Your task to perform on an android device: make emails show in primary in the gmail app Image 0: 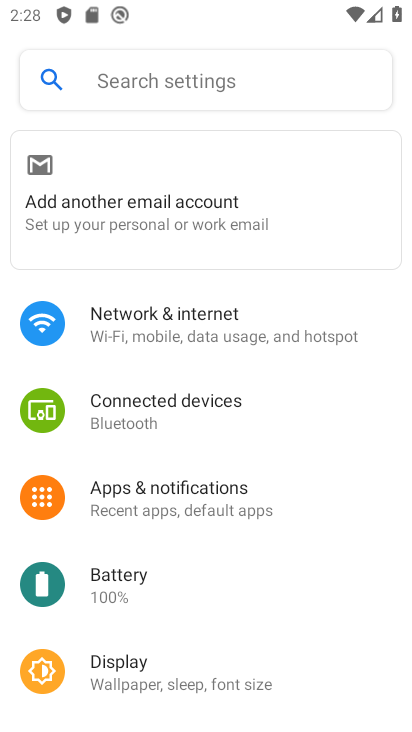
Step 0: press home button
Your task to perform on an android device: make emails show in primary in the gmail app Image 1: 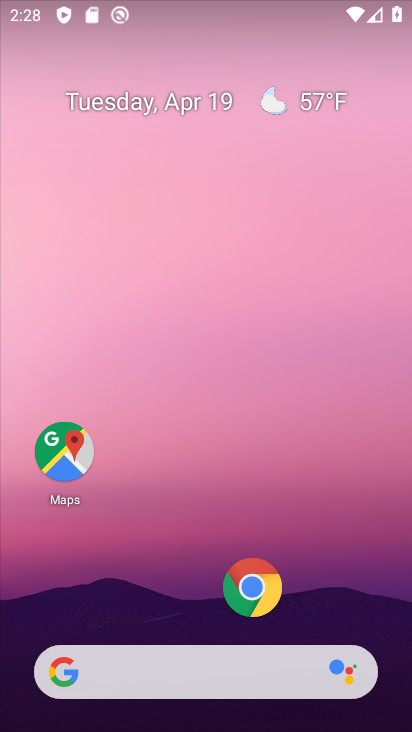
Step 1: drag from (205, 618) to (257, 6)
Your task to perform on an android device: make emails show in primary in the gmail app Image 2: 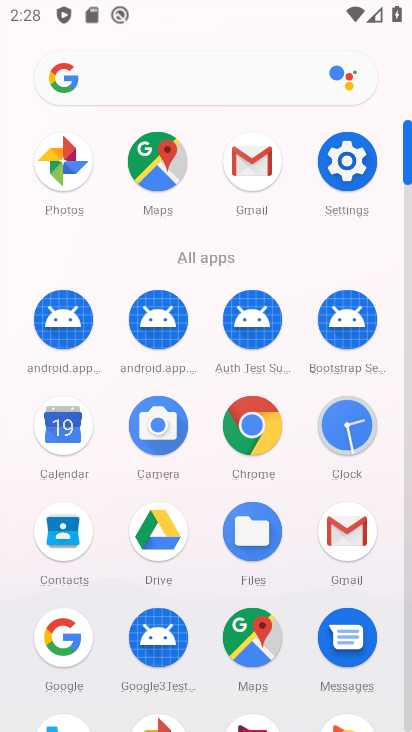
Step 2: click (346, 538)
Your task to perform on an android device: make emails show in primary in the gmail app Image 3: 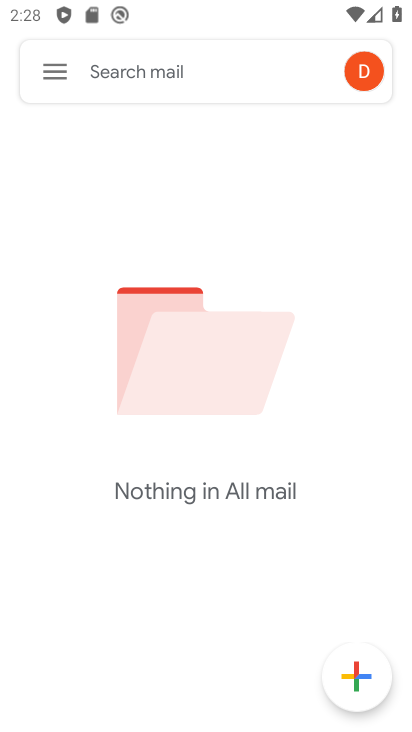
Step 3: click (48, 62)
Your task to perform on an android device: make emails show in primary in the gmail app Image 4: 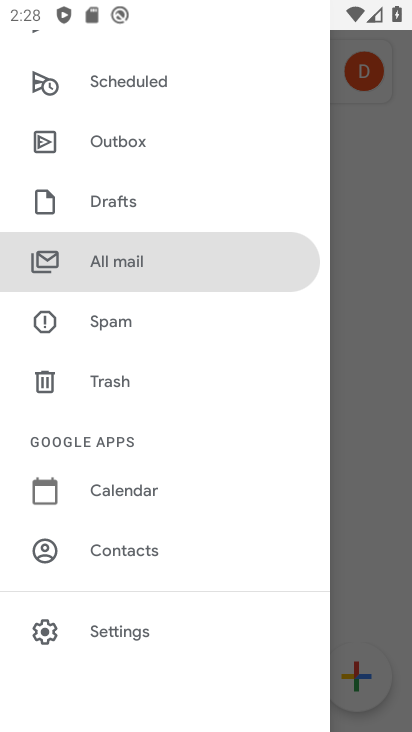
Step 4: click (113, 641)
Your task to perform on an android device: make emails show in primary in the gmail app Image 5: 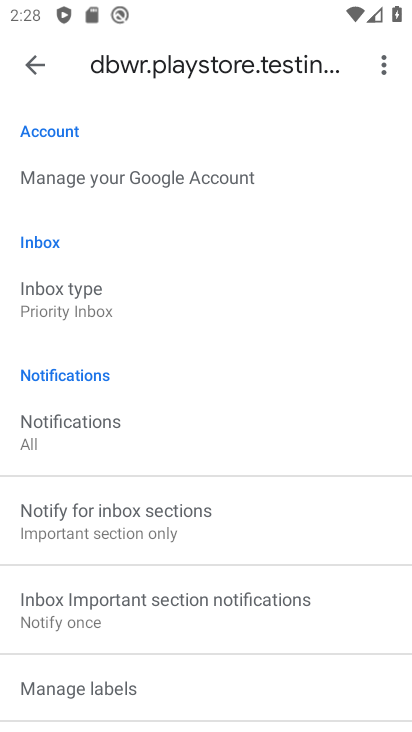
Step 5: click (78, 304)
Your task to perform on an android device: make emails show in primary in the gmail app Image 6: 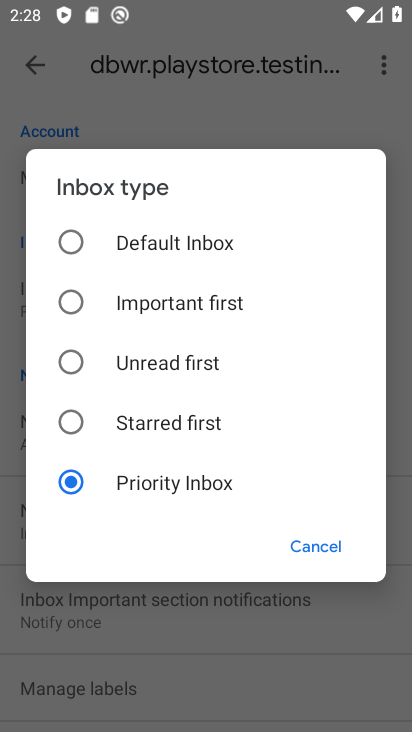
Step 6: click (121, 250)
Your task to perform on an android device: make emails show in primary in the gmail app Image 7: 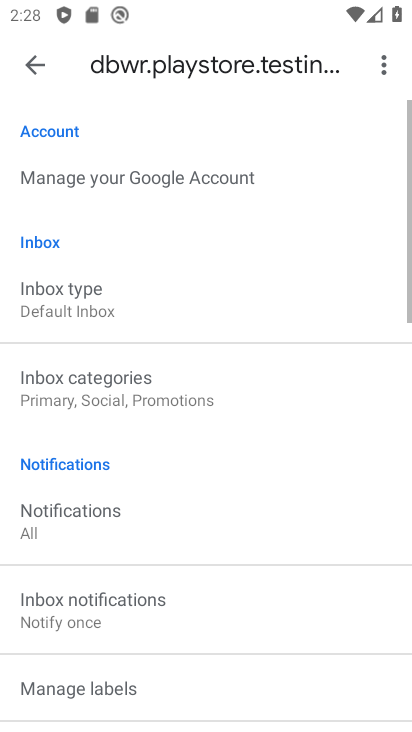
Step 7: click (84, 395)
Your task to perform on an android device: make emails show in primary in the gmail app Image 8: 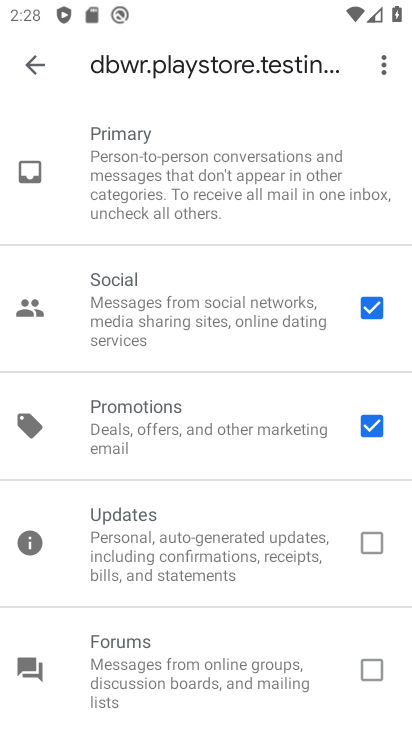
Step 8: click (373, 311)
Your task to perform on an android device: make emails show in primary in the gmail app Image 9: 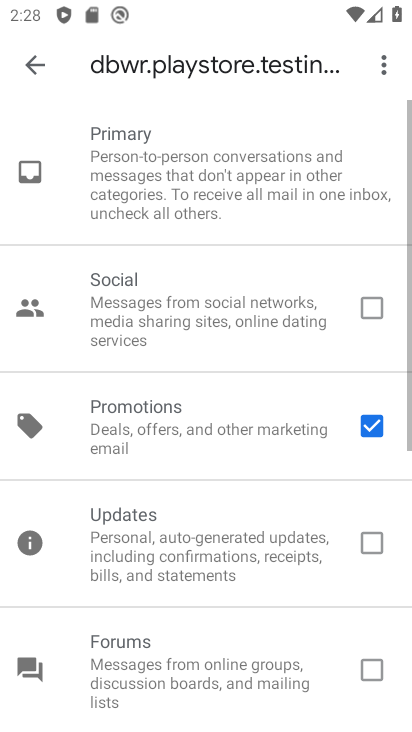
Step 9: click (372, 424)
Your task to perform on an android device: make emails show in primary in the gmail app Image 10: 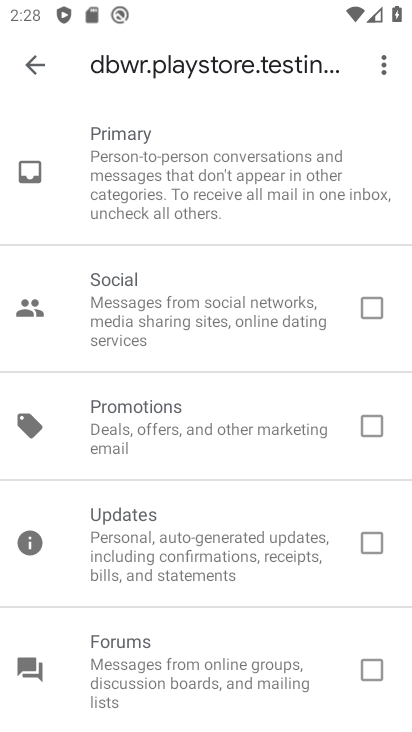
Step 10: task complete